Your task to perform on an android device: empty trash in google photos Image 0: 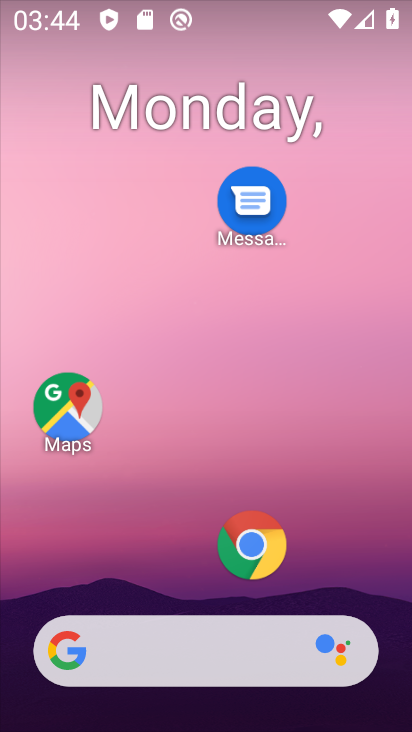
Step 0: drag from (191, 538) to (282, 164)
Your task to perform on an android device: empty trash in google photos Image 1: 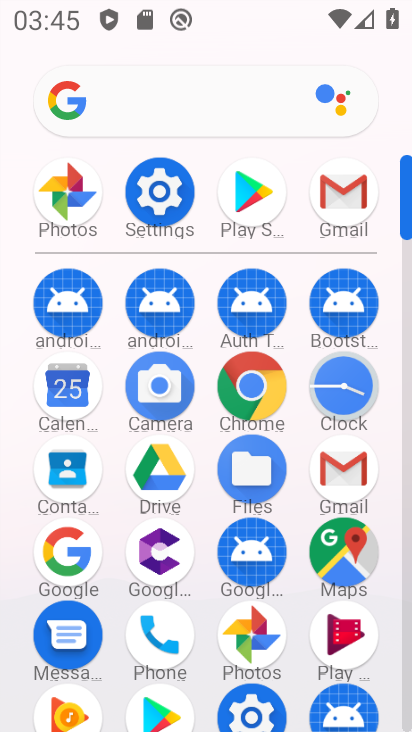
Step 1: click (256, 639)
Your task to perform on an android device: empty trash in google photos Image 2: 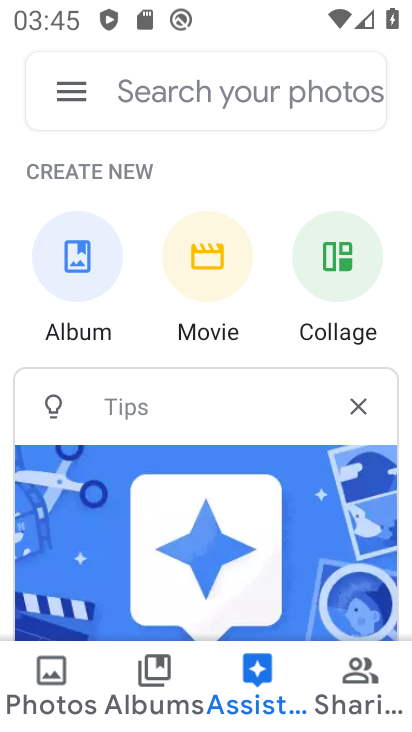
Step 2: click (72, 84)
Your task to perform on an android device: empty trash in google photos Image 3: 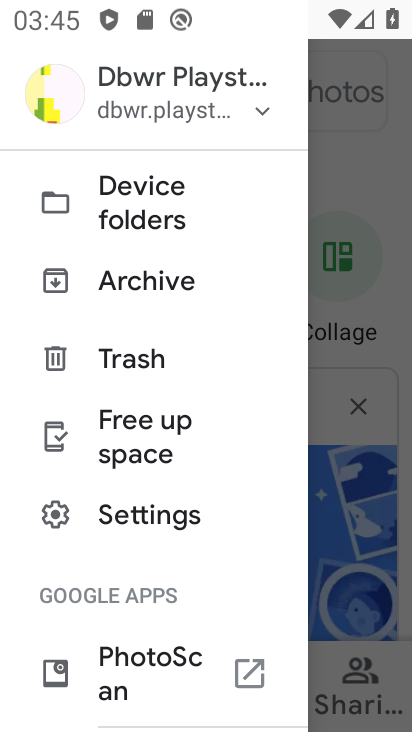
Step 3: click (127, 357)
Your task to perform on an android device: empty trash in google photos Image 4: 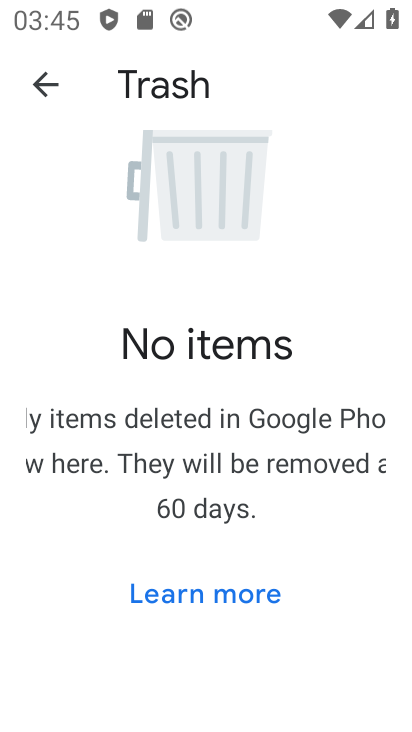
Step 4: task complete